Your task to perform on an android device: Toggle the flashlight Image 0: 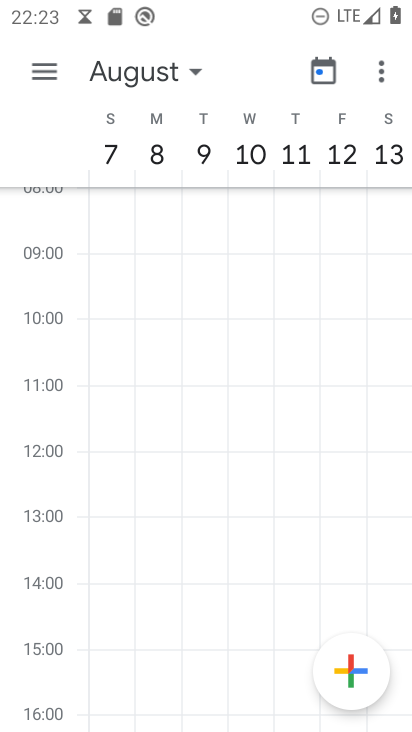
Step 0: press home button
Your task to perform on an android device: Toggle the flashlight Image 1: 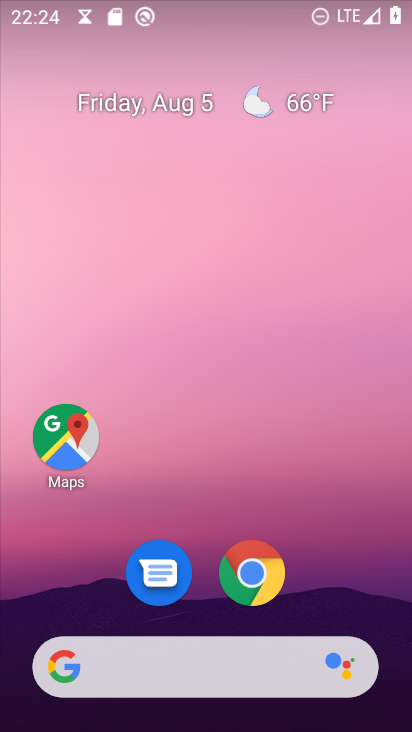
Step 1: drag from (173, 674) to (179, 71)
Your task to perform on an android device: Toggle the flashlight Image 2: 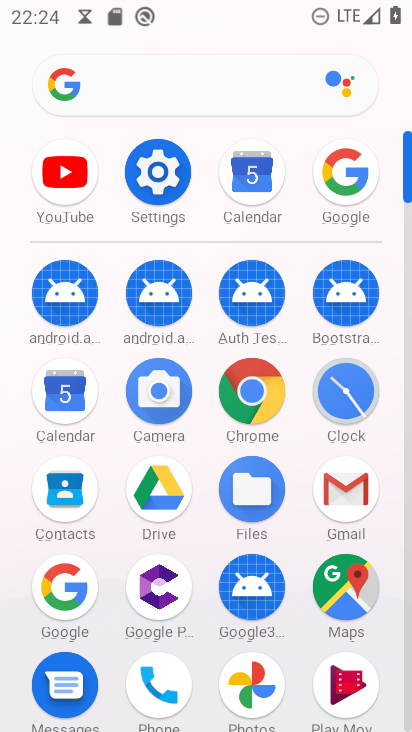
Step 2: drag from (193, 562) to (230, 332)
Your task to perform on an android device: Toggle the flashlight Image 3: 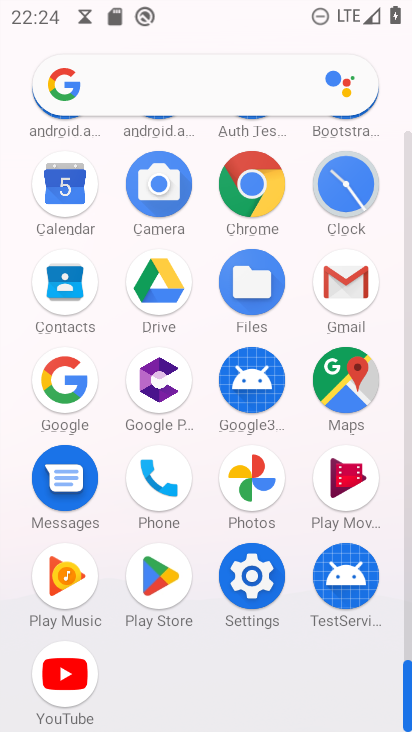
Step 3: click (253, 574)
Your task to perform on an android device: Toggle the flashlight Image 4: 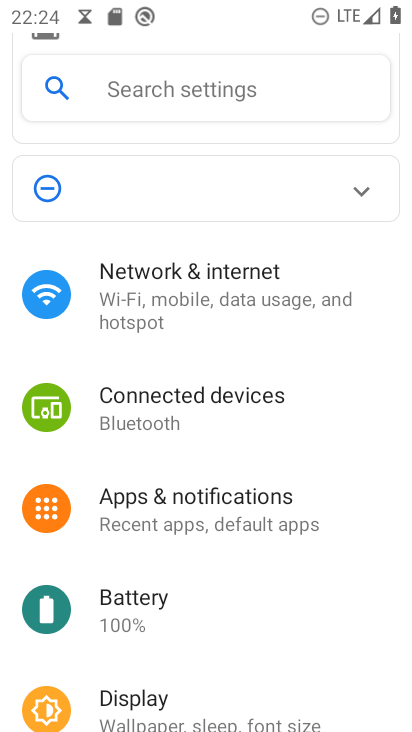
Step 4: drag from (222, 622) to (269, 423)
Your task to perform on an android device: Toggle the flashlight Image 5: 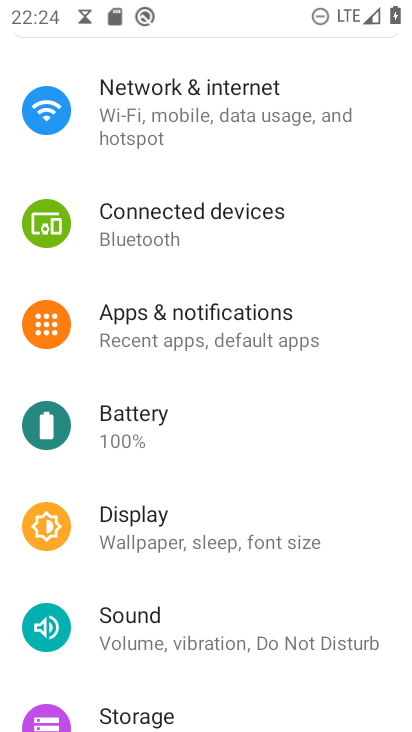
Step 5: drag from (201, 568) to (258, 430)
Your task to perform on an android device: Toggle the flashlight Image 6: 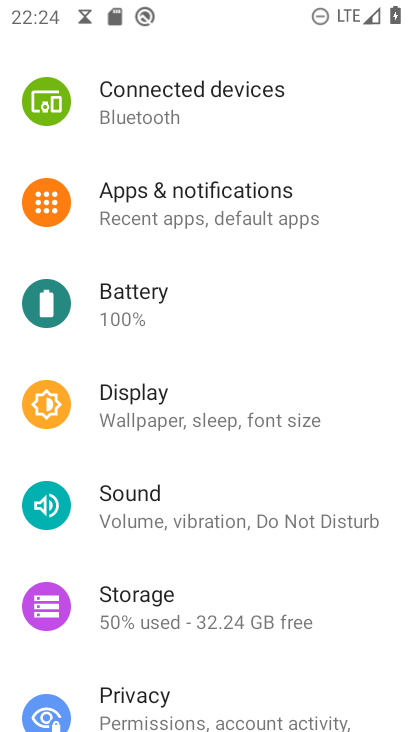
Step 6: drag from (181, 569) to (261, 454)
Your task to perform on an android device: Toggle the flashlight Image 7: 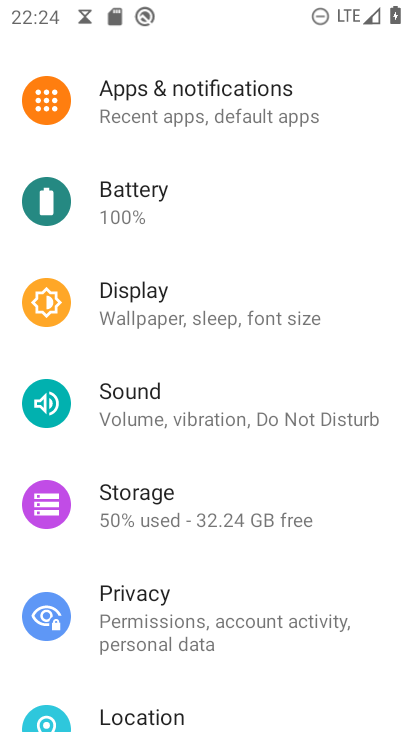
Step 7: drag from (161, 577) to (228, 478)
Your task to perform on an android device: Toggle the flashlight Image 8: 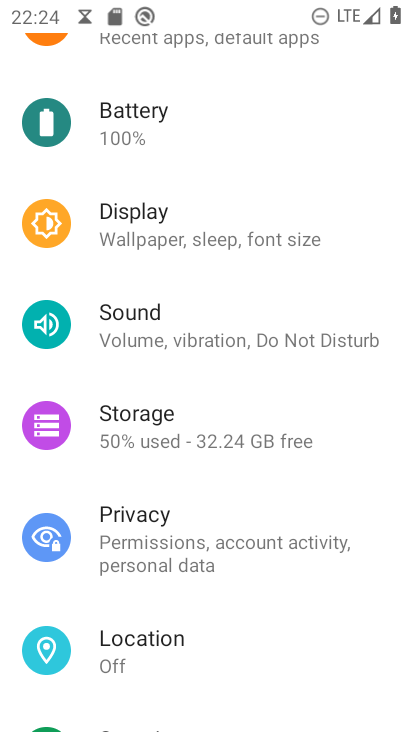
Step 8: click (231, 245)
Your task to perform on an android device: Toggle the flashlight Image 9: 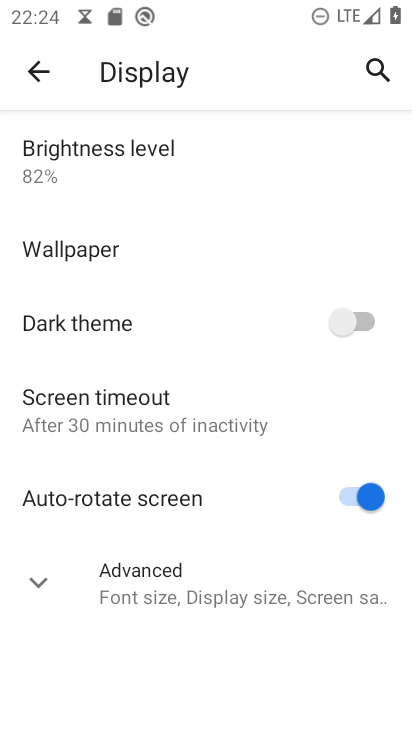
Step 9: drag from (220, 283) to (222, 499)
Your task to perform on an android device: Toggle the flashlight Image 10: 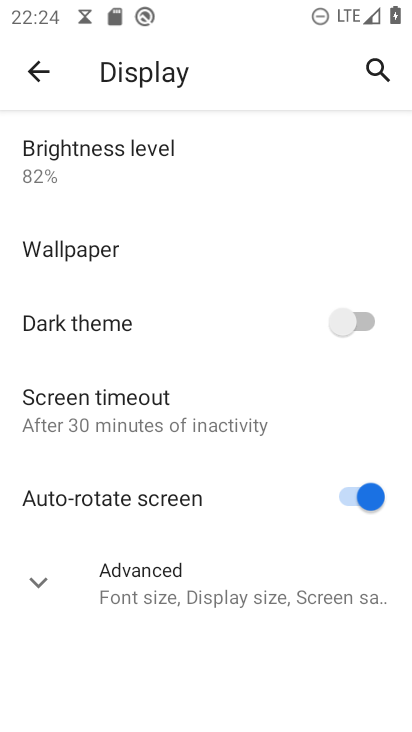
Step 10: click (183, 433)
Your task to perform on an android device: Toggle the flashlight Image 11: 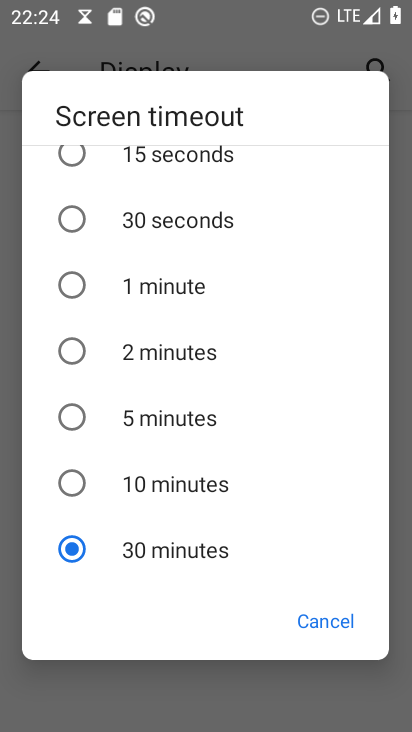
Step 11: click (318, 632)
Your task to perform on an android device: Toggle the flashlight Image 12: 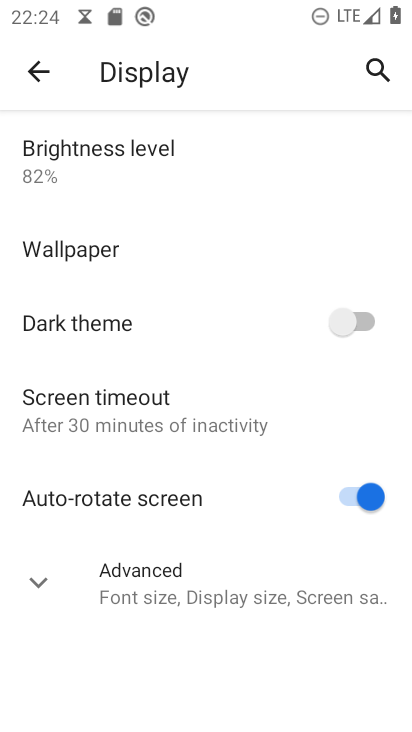
Step 12: click (253, 595)
Your task to perform on an android device: Toggle the flashlight Image 13: 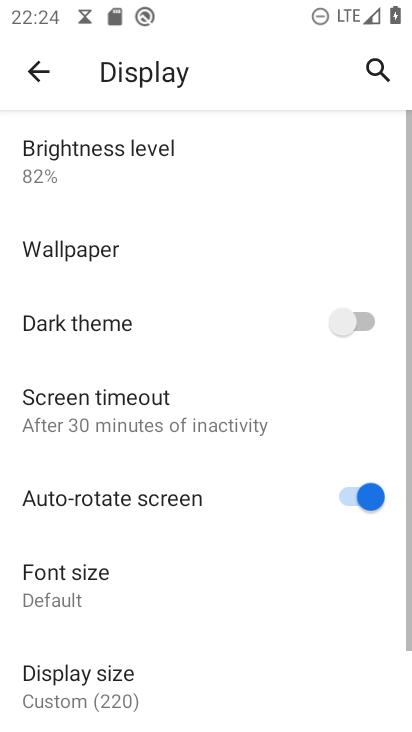
Step 13: drag from (187, 578) to (206, 258)
Your task to perform on an android device: Toggle the flashlight Image 14: 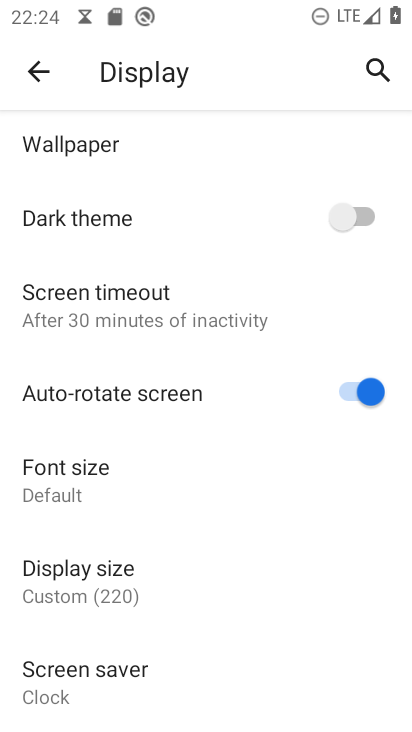
Step 14: click (71, 664)
Your task to perform on an android device: Toggle the flashlight Image 15: 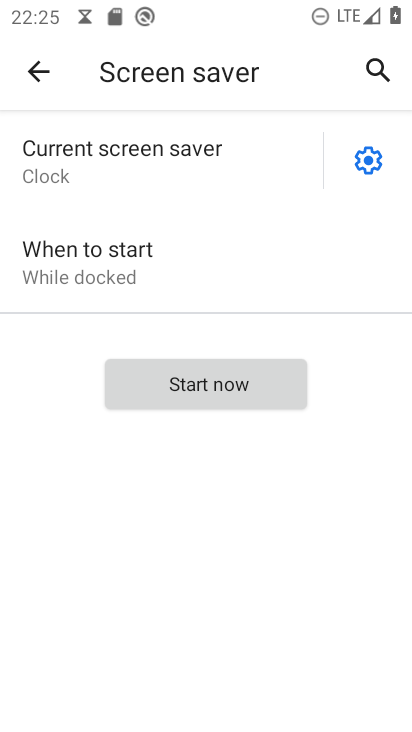
Step 15: click (368, 161)
Your task to perform on an android device: Toggle the flashlight Image 16: 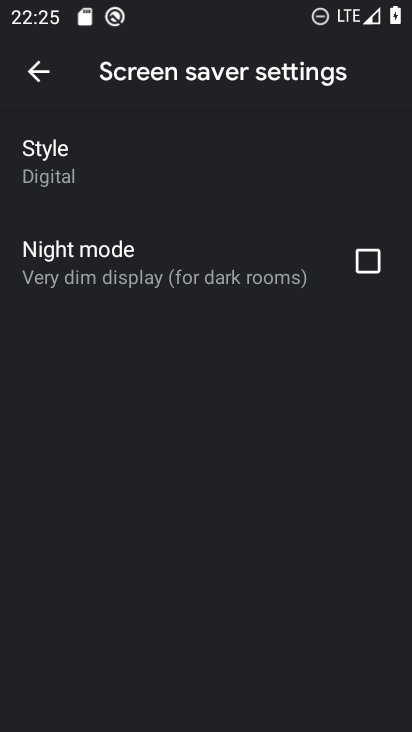
Step 16: task complete